Your task to perform on an android device: Check the news Image 0: 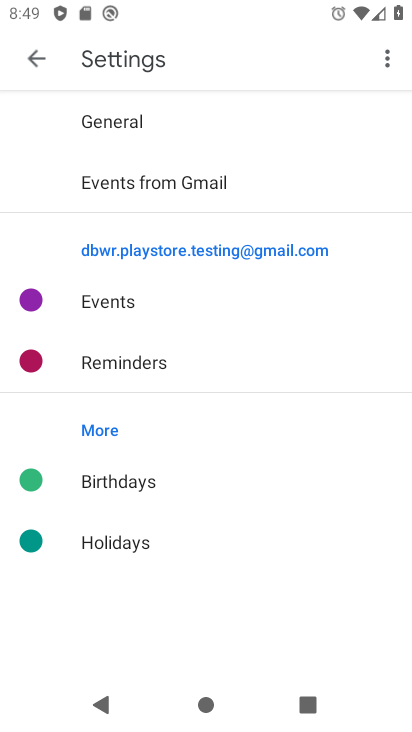
Step 0: click (35, 59)
Your task to perform on an android device: Check the news Image 1: 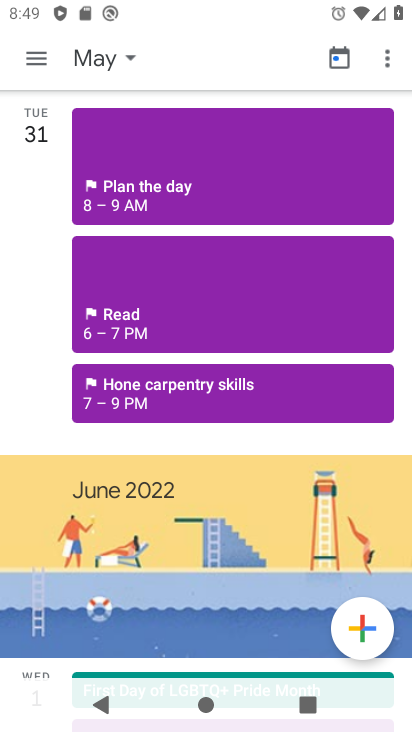
Step 1: press back button
Your task to perform on an android device: Check the news Image 2: 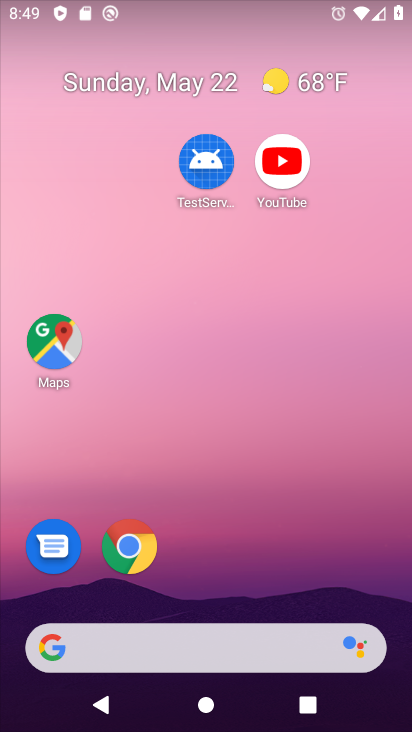
Step 2: drag from (0, 195) to (373, 620)
Your task to perform on an android device: Check the news Image 3: 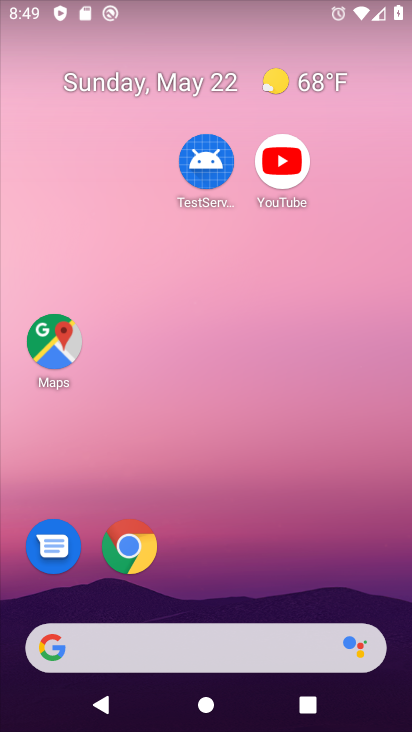
Step 3: click (402, 434)
Your task to perform on an android device: Check the news Image 4: 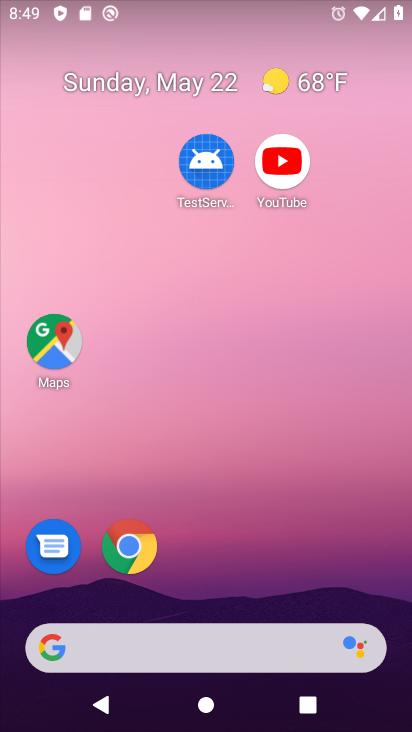
Step 4: drag from (27, 221) to (380, 341)
Your task to perform on an android device: Check the news Image 5: 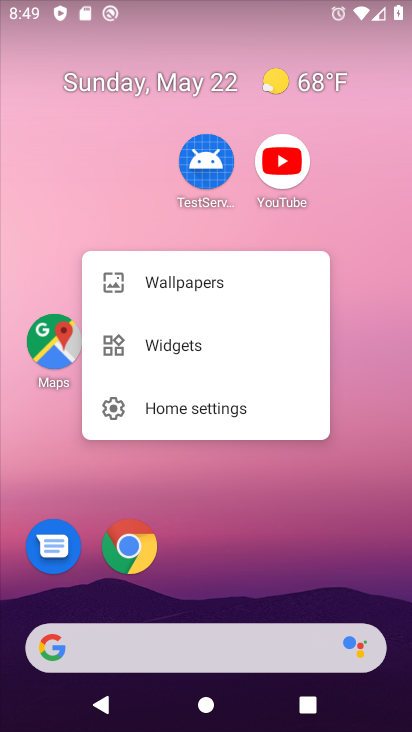
Step 5: drag from (0, 194) to (295, 341)
Your task to perform on an android device: Check the news Image 6: 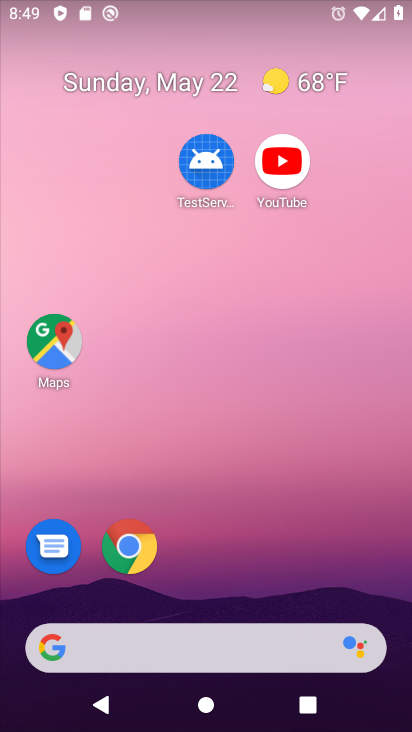
Step 6: click (114, 196)
Your task to perform on an android device: Check the news Image 7: 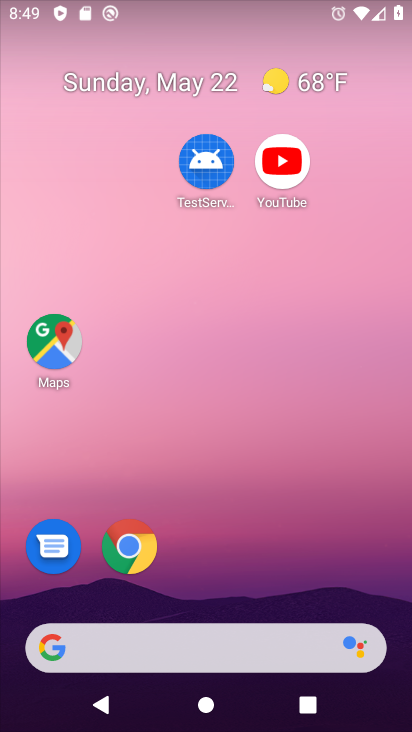
Step 7: drag from (14, 157) to (358, 431)
Your task to perform on an android device: Check the news Image 8: 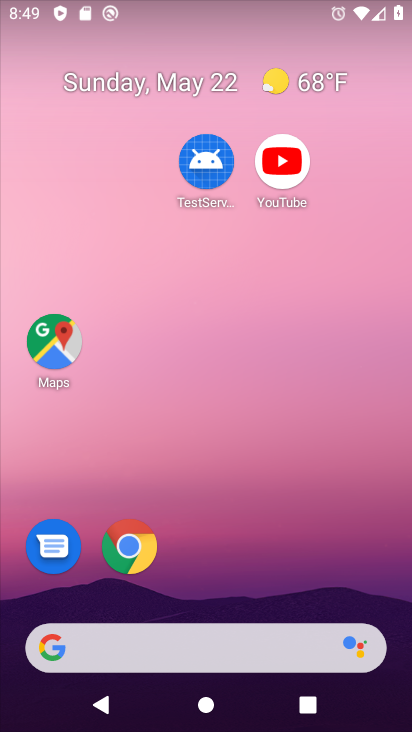
Step 8: drag from (9, 208) to (391, 392)
Your task to perform on an android device: Check the news Image 9: 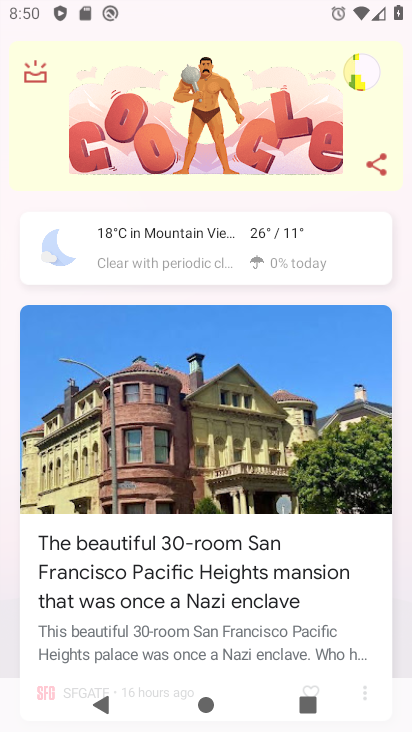
Step 9: click (231, 196)
Your task to perform on an android device: Check the news Image 10: 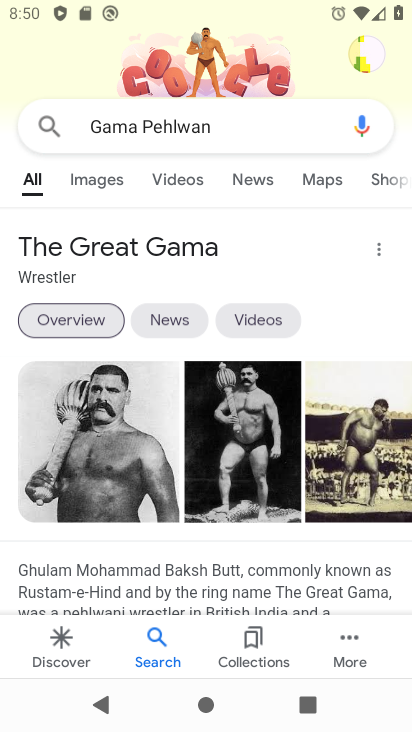
Step 10: drag from (187, 499) to (183, 209)
Your task to perform on an android device: Check the news Image 11: 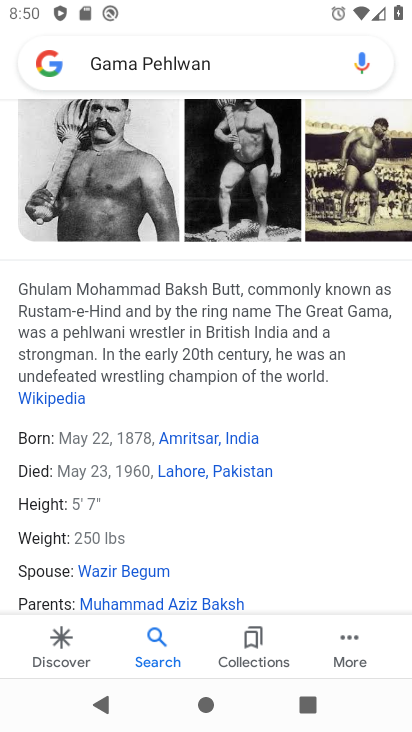
Step 11: drag from (213, 478) to (189, 165)
Your task to perform on an android device: Check the news Image 12: 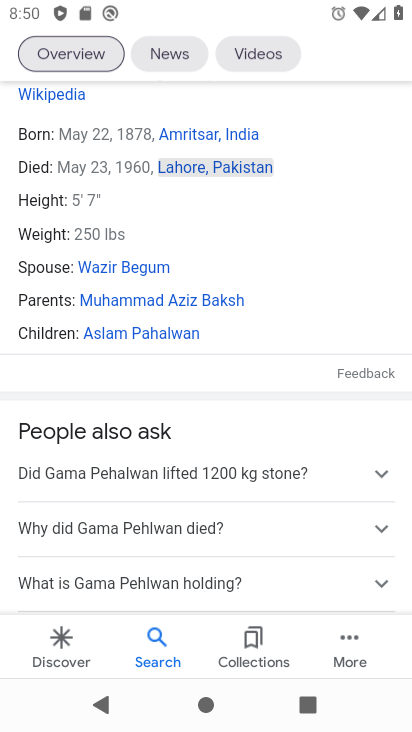
Step 12: click (214, 98)
Your task to perform on an android device: Check the news Image 13: 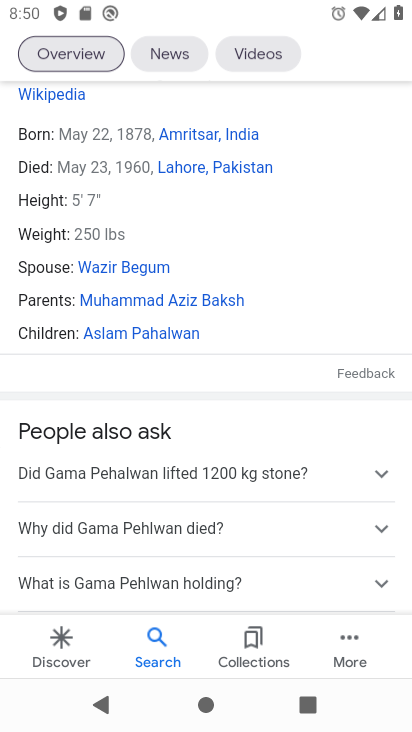
Step 13: task complete